Your task to perform on an android device: Open Google Maps and go to "Timeline" Image 0: 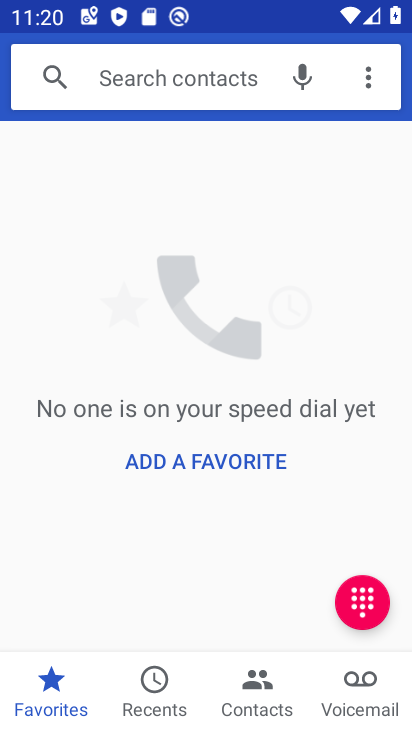
Step 0: press home button
Your task to perform on an android device: Open Google Maps and go to "Timeline" Image 1: 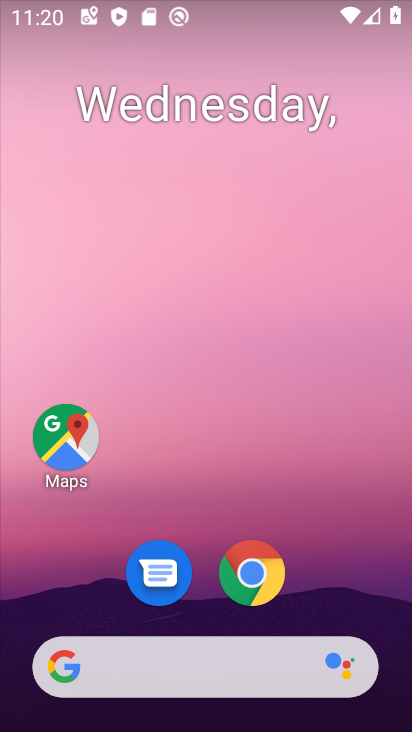
Step 1: drag from (182, 546) to (180, 305)
Your task to perform on an android device: Open Google Maps and go to "Timeline" Image 2: 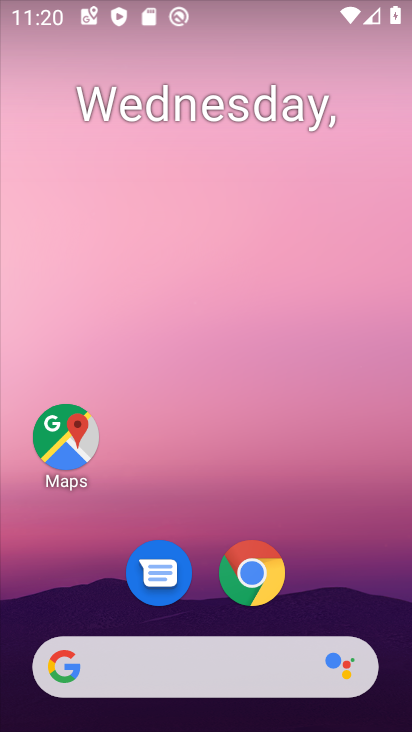
Step 2: click (67, 456)
Your task to perform on an android device: Open Google Maps and go to "Timeline" Image 3: 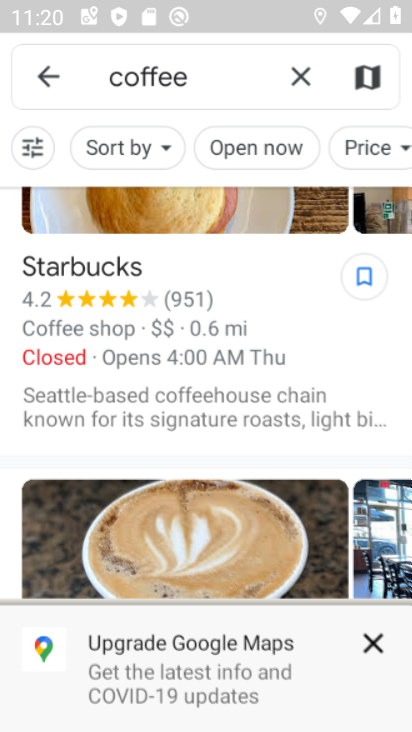
Step 3: click (42, 75)
Your task to perform on an android device: Open Google Maps and go to "Timeline" Image 4: 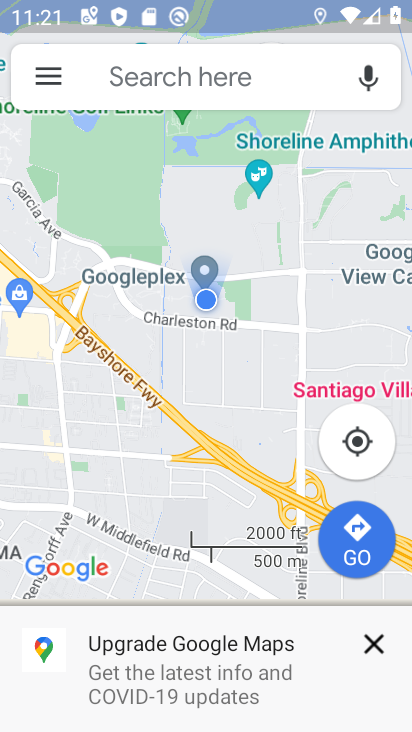
Step 4: click (40, 62)
Your task to perform on an android device: Open Google Maps and go to "Timeline" Image 5: 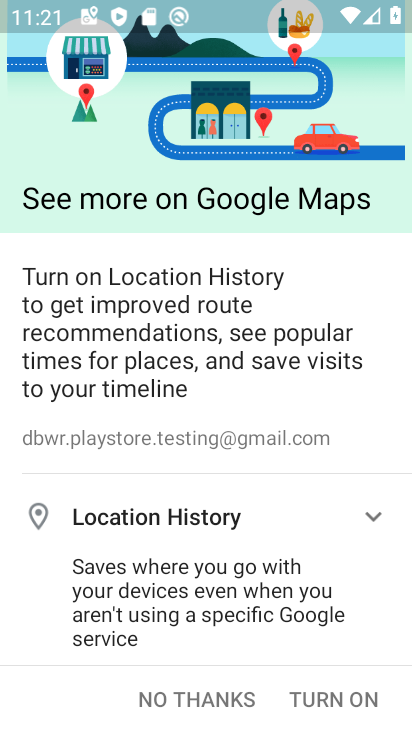
Step 5: click (336, 700)
Your task to perform on an android device: Open Google Maps and go to "Timeline" Image 6: 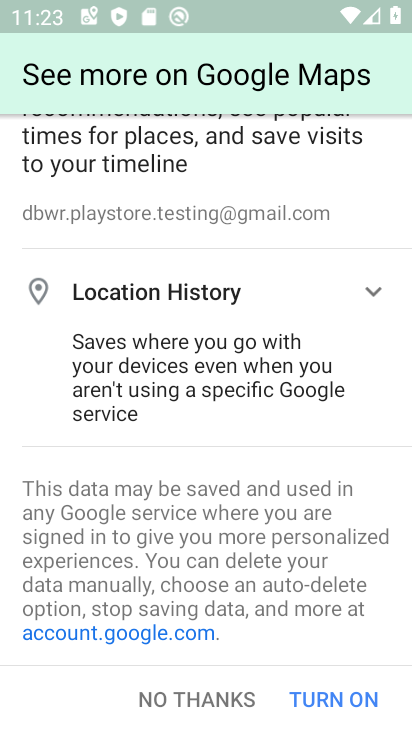
Step 6: click (368, 696)
Your task to perform on an android device: Open Google Maps and go to "Timeline" Image 7: 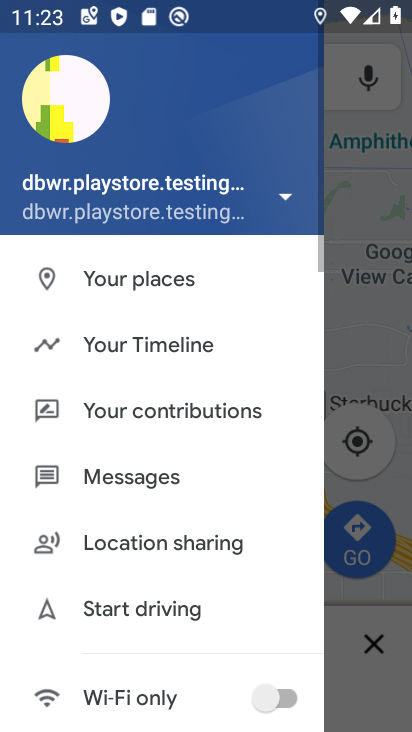
Step 7: click (117, 349)
Your task to perform on an android device: Open Google Maps and go to "Timeline" Image 8: 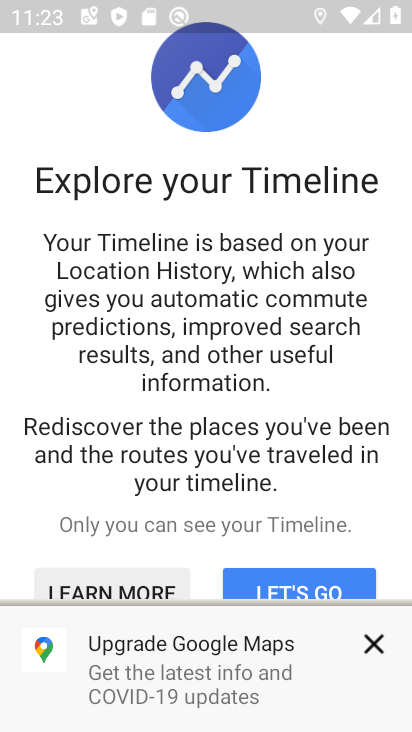
Step 8: click (283, 593)
Your task to perform on an android device: Open Google Maps and go to "Timeline" Image 9: 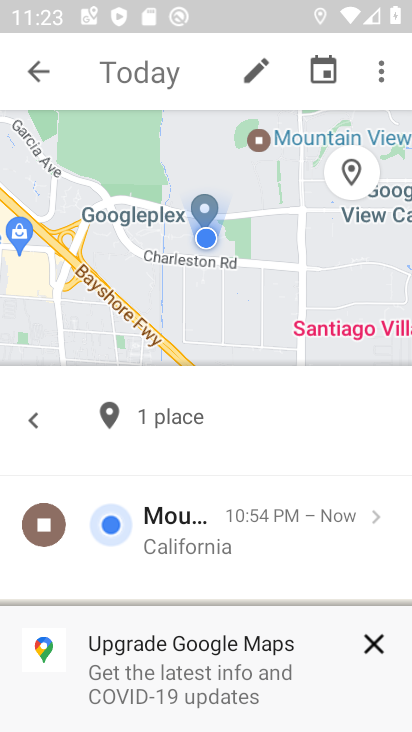
Step 9: task complete